Your task to perform on an android device: Set the phone to "Do not disturb". Image 0: 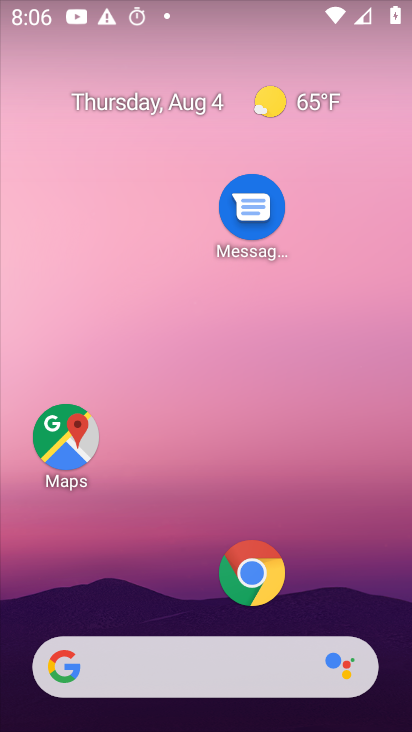
Step 0: press home button
Your task to perform on an android device: Set the phone to "Do not disturb". Image 1: 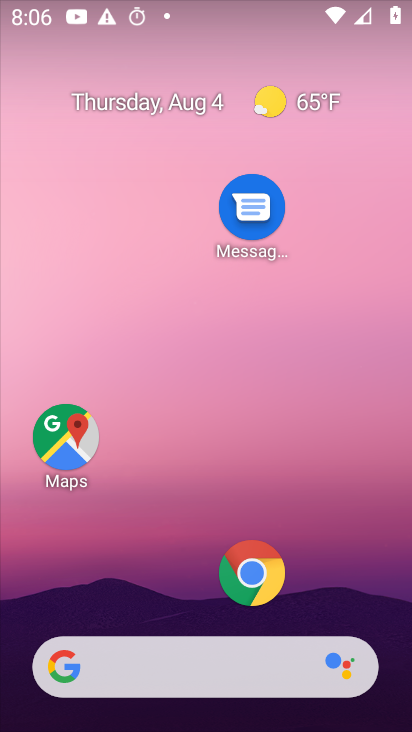
Step 1: drag from (174, 254) to (151, 333)
Your task to perform on an android device: Set the phone to "Do not disturb". Image 2: 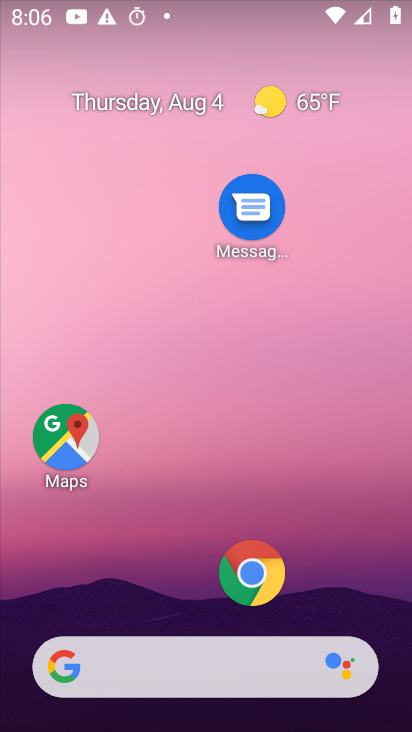
Step 2: drag from (222, 0) to (185, 604)
Your task to perform on an android device: Set the phone to "Do not disturb". Image 3: 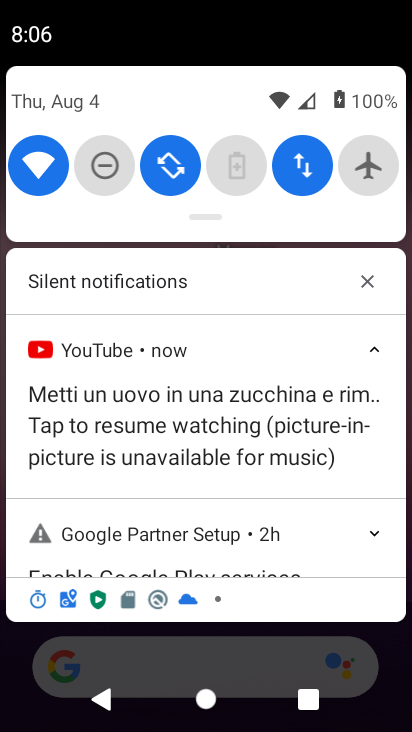
Step 3: click (90, 172)
Your task to perform on an android device: Set the phone to "Do not disturb". Image 4: 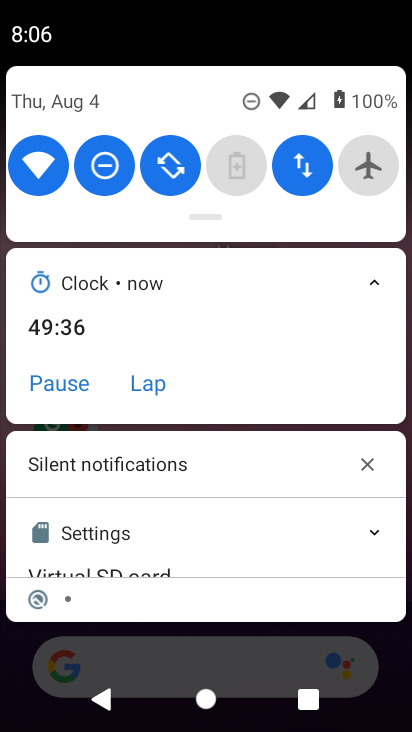
Step 4: task complete